Your task to perform on an android device: Open sound settings Image 0: 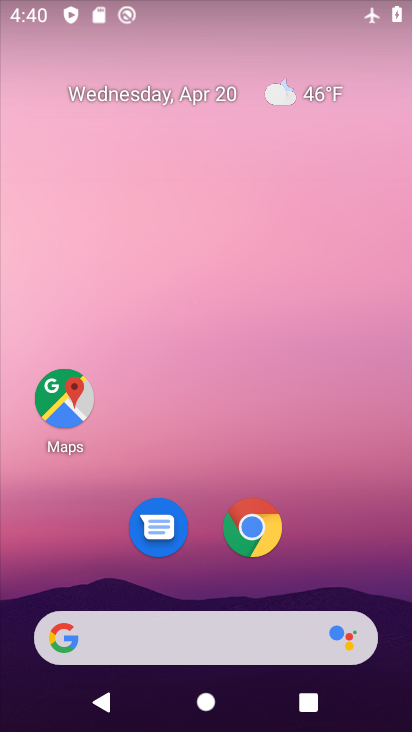
Step 0: drag from (197, 556) to (205, 169)
Your task to perform on an android device: Open sound settings Image 1: 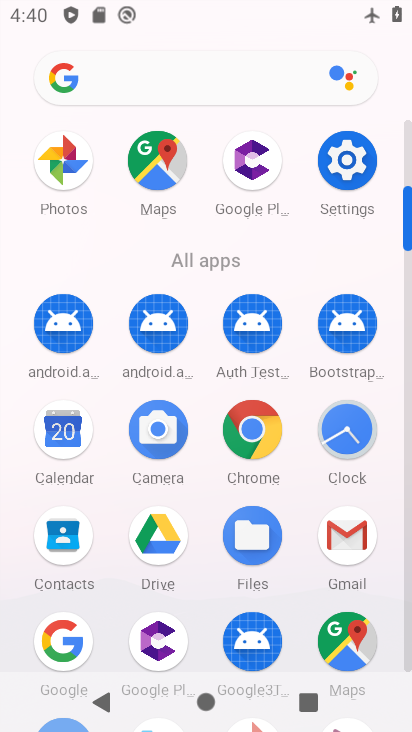
Step 1: click (343, 189)
Your task to perform on an android device: Open sound settings Image 2: 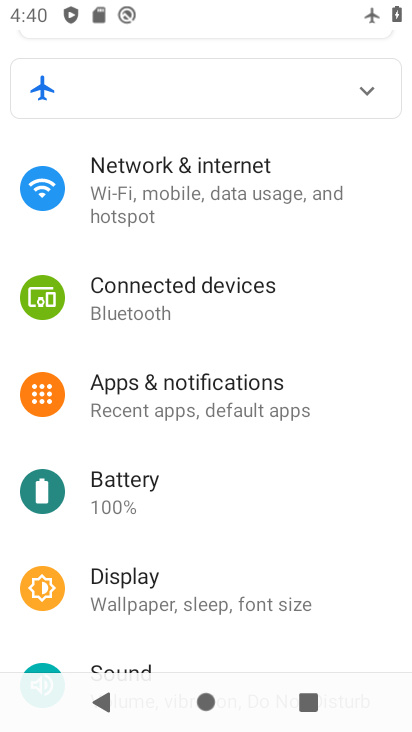
Step 2: drag from (185, 578) to (165, 246)
Your task to perform on an android device: Open sound settings Image 3: 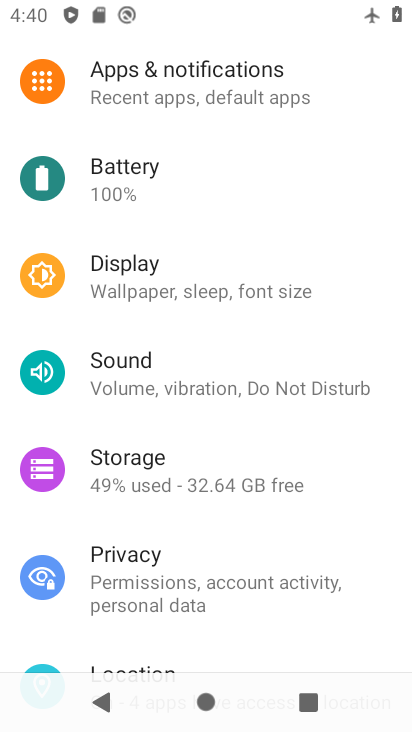
Step 3: click (173, 366)
Your task to perform on an android device: Open sound settings Image 4: 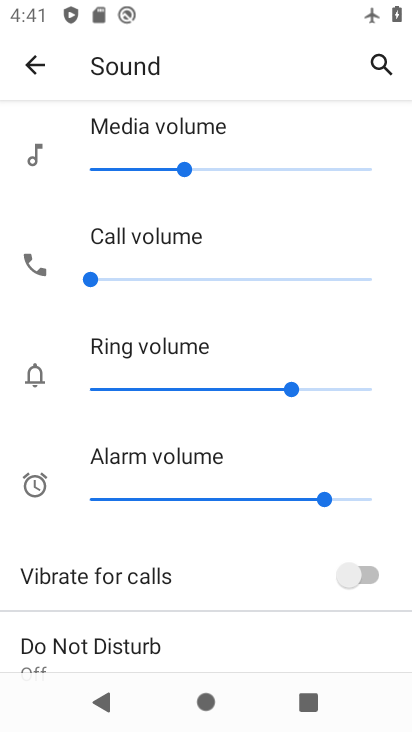
Step 4: task complete